Your task to perform on an android device: Search for flights from NYC to London Image 0: 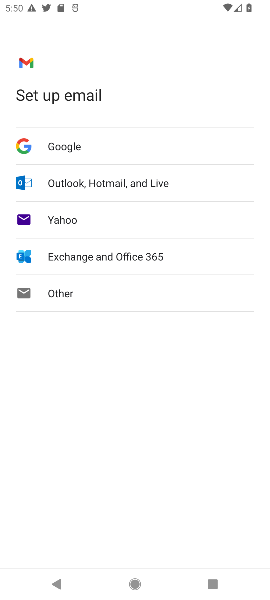
Step 0: press home button
Your task to perform on an android device: Search for flights from NYC to London Image 1: 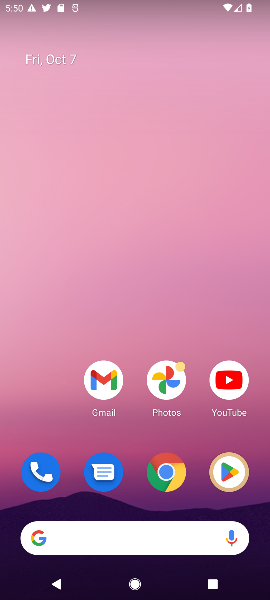
Step 1: click (172, 479)
Your task to perform on an android device: Search for flights from NYC to London Image 2: 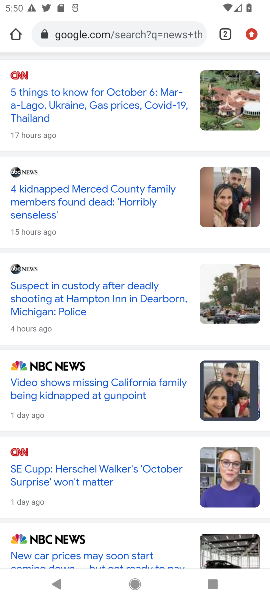
Step 2: click (165, 32)
Your task to perform on an android device: Search for flights from NYC to London Image 3: 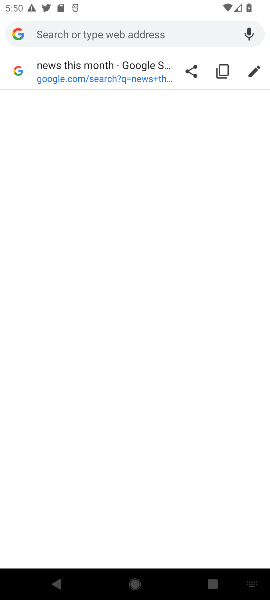
Step 3: type "flights from NYC to London"
Your task to perform on an android device: Search for flights from NYC to London Image 4: 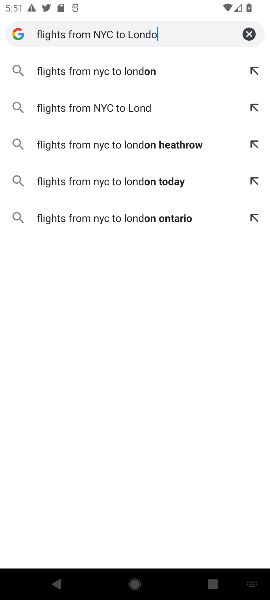
Step 4: type ""
Your task to perform on an android device: Search for flights from NYC to London Image 5: 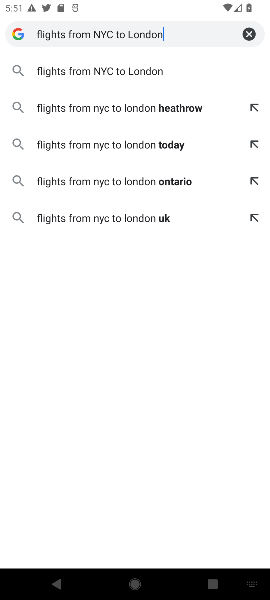
Step 5: click (142, 63)
Your task to perform on an android device: Search for flights from NYC to London Image 6: 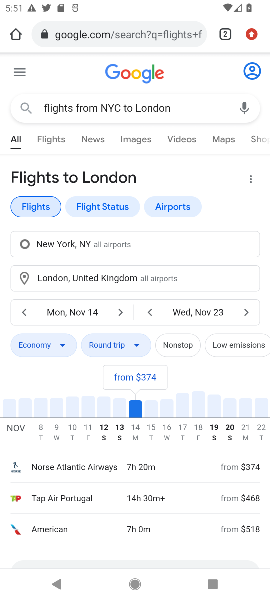
Step 6: drag from (140, 458) to (132, 263)
Your task to perform on an android device: Search for flights from NYC to London Image 7: 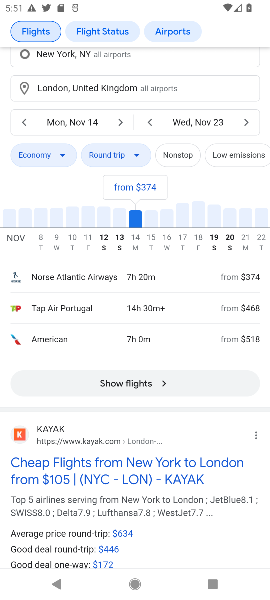
Step 7: click (133, 381)
Your task to perform on an android device: Search for flights from NYC to London Image 8: 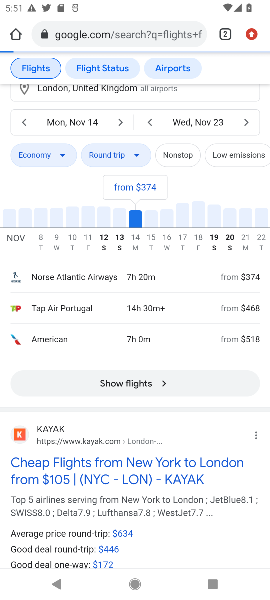
Step 8: click (115, 385)
Your task to perform on an android device: Search for flights from NYC to London Image 9: 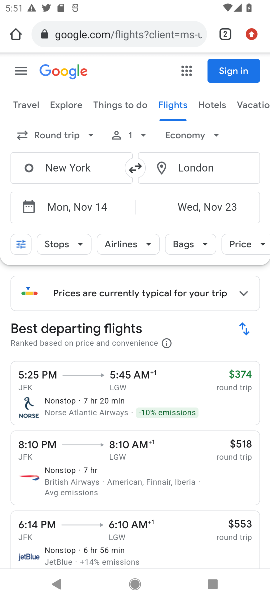
Step 9: task complete